Your task to perform on an android device: Open the stopwatch Image 0: 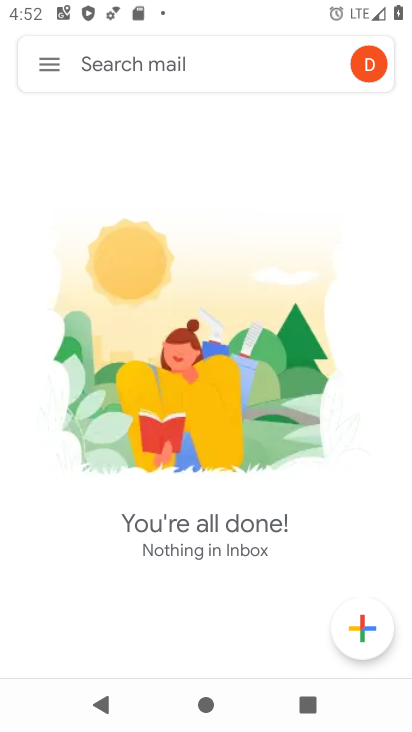
Step 0: press back button
Your task to perform on an android device: Open the stopwatch Image 1: 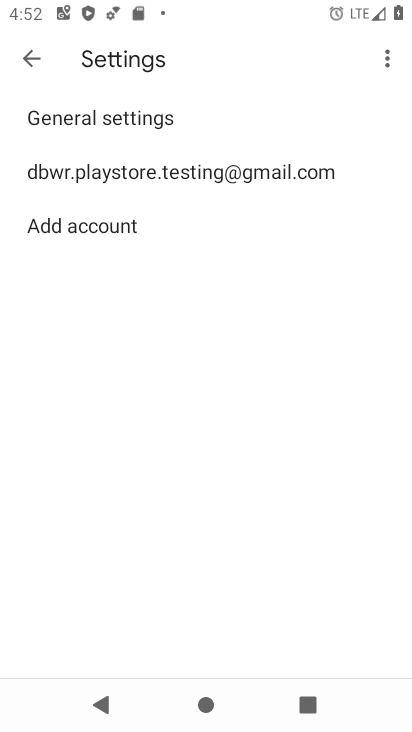
Step 1: press back button
Your task to perform on an android device: Open the stopwatch Image 2: 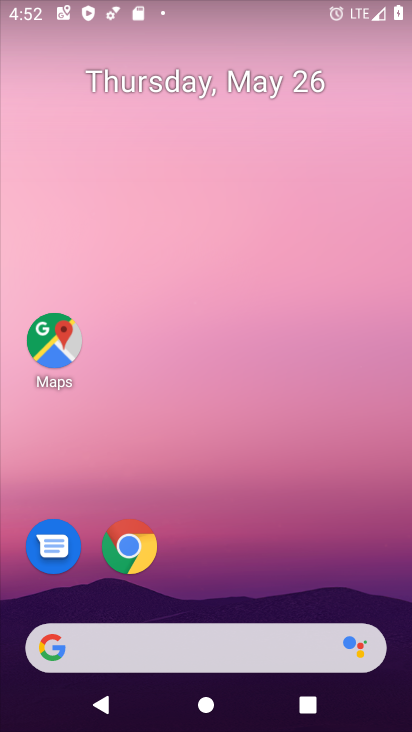
Step 2: press home button
Your task to perform on an android device: Open the stopwatch Image 3: 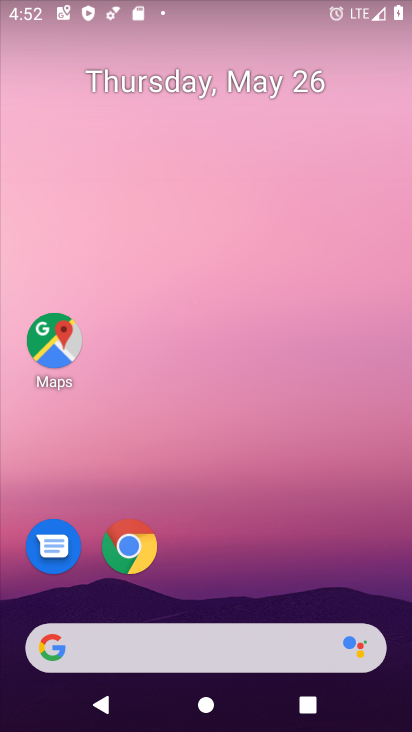
Step 3: drag from (208, 588) to (236, 77)
Your task to perform on an android device: Open the stopwatch Image 4: 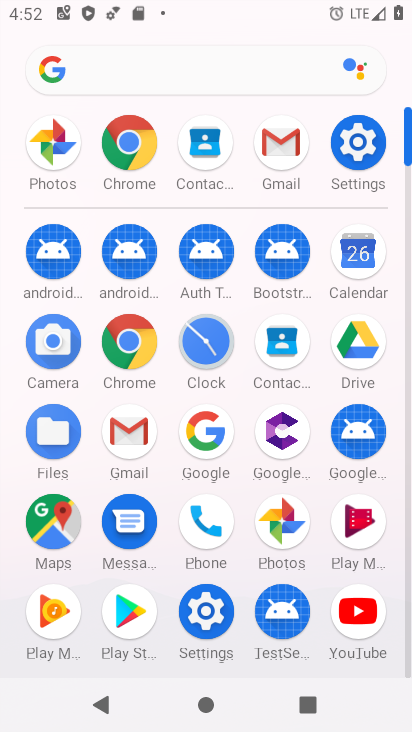
Step 4: click (202, 346)
Your task to perform on an android device: Open the stopwatch Image 5: 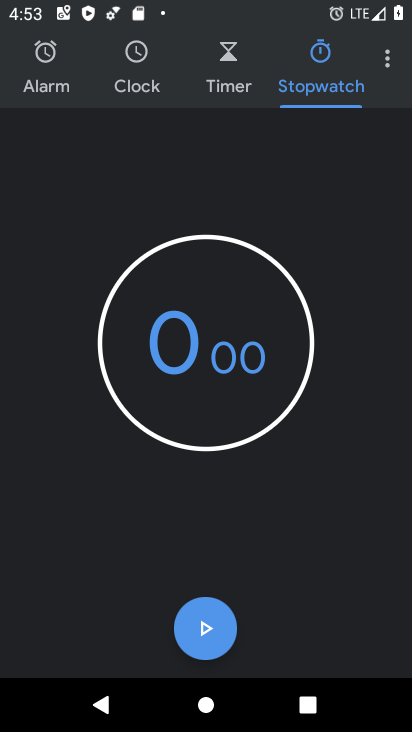
Step 5: task complete